Your task to perform on an android device: Open Google Chrome and open the bookmarks view Image 0: 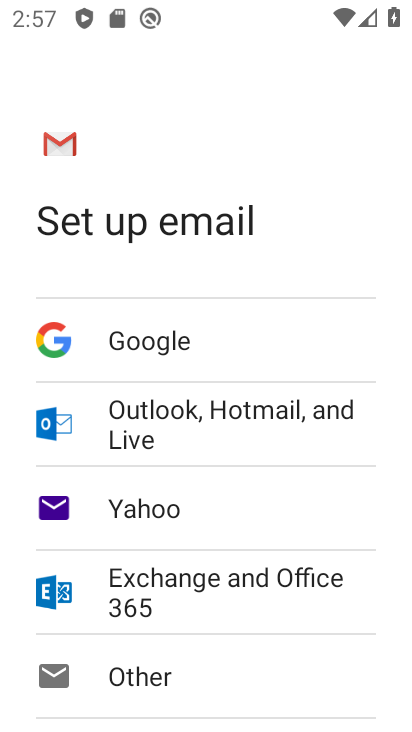
Step 0: press back button
Your task to perform on an android device: Open Google Chrome and open the bookmarks view Image 1: 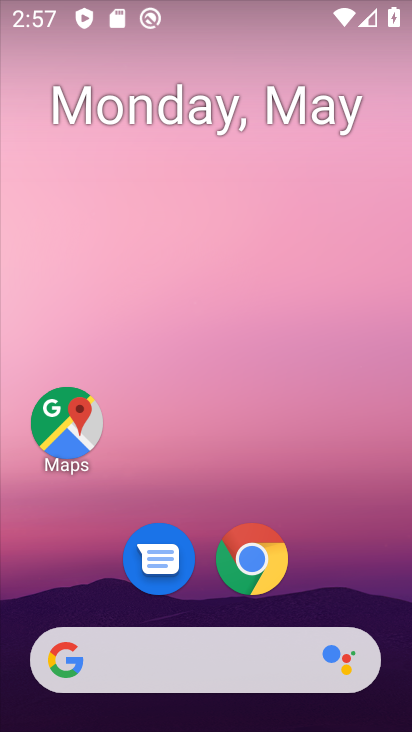
Step 1: press home button
Your task to perform on an android device: Open Google Chrome and open the bookmarks view Image 2: 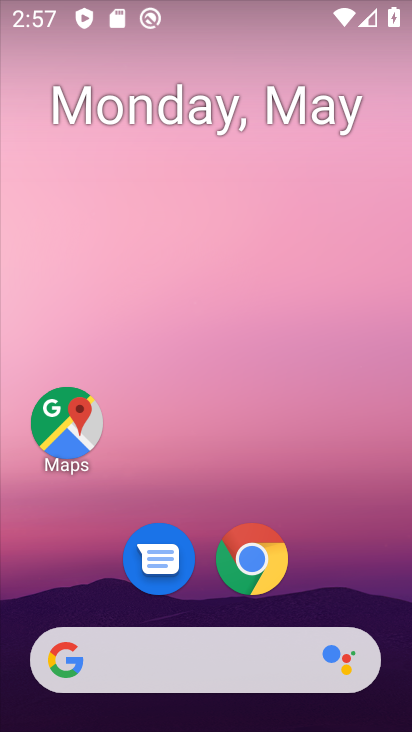
Step 2: drag from (267, 649) to (152, 177)
Your task to perform on an android device: Open Google Chrome and open the bookmarks view Image 3: 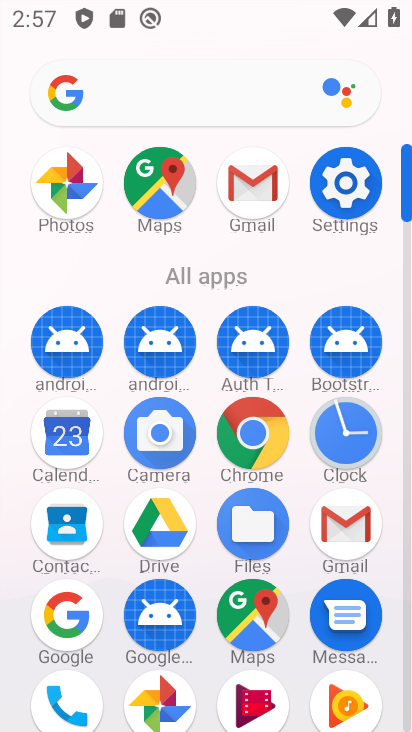
Step 3: click (253, 432)
Your task to perform on an android device: Open Google Chrome and open the bookmarks view Image 4: 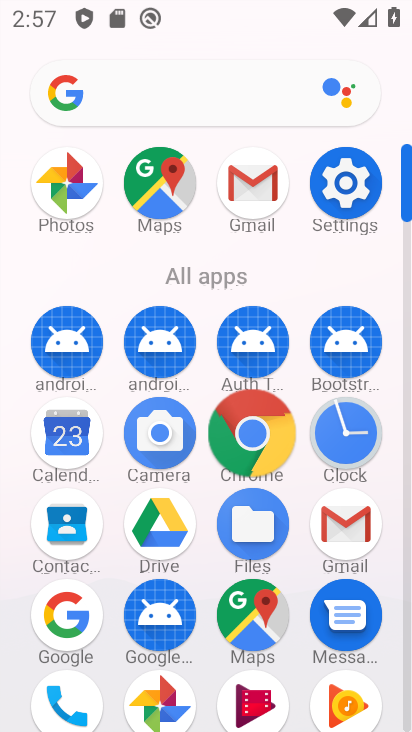
Step 4: click (252, 434)
Your task to perform on an android device: Open Google Chrome and open the bookmarks view Image 5: 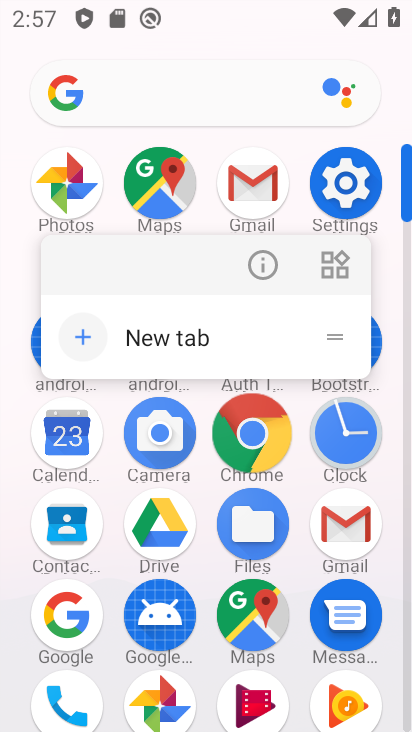
Step 5: click (252, 434)
Your task to perform on an android device: Open Google Chrome and open the bookmarks view Image 6: 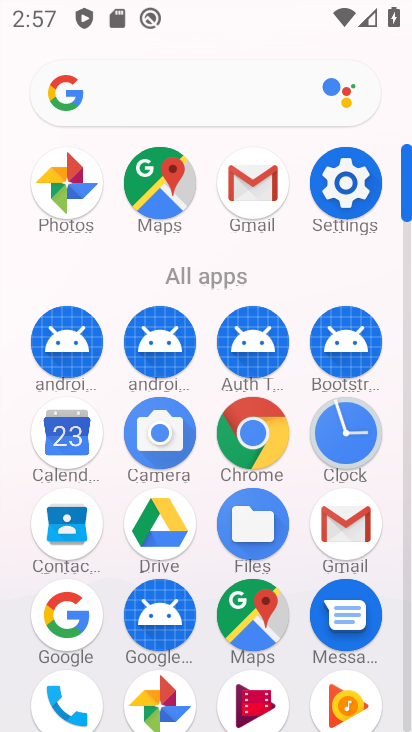
Step 6: click (252, 434)
Your task to perform on an android device: Open Google Chrome and open the bookmarks view Image 7: 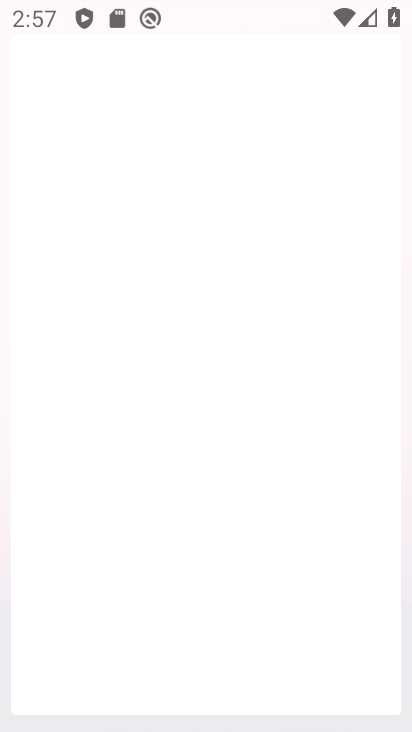
Step 7: click (252, 434)
Your task to perform on an android device: Open Google Chrome and open the bookmarks view Image 8: 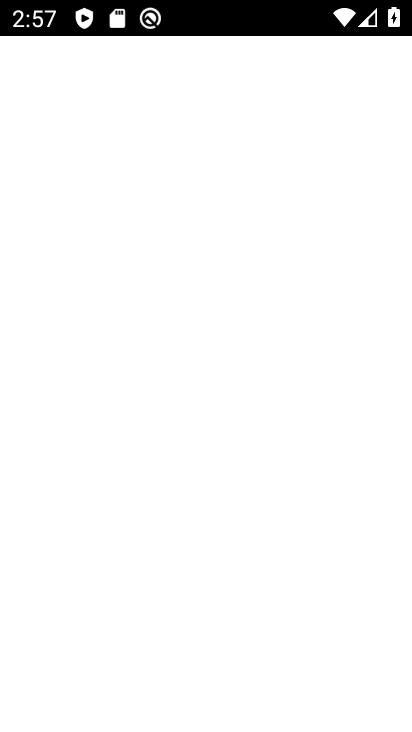
Step 8: click (252, 434)
Your task to perform on an android device: Open Google Chrome and open the bookmarks view Image 9: 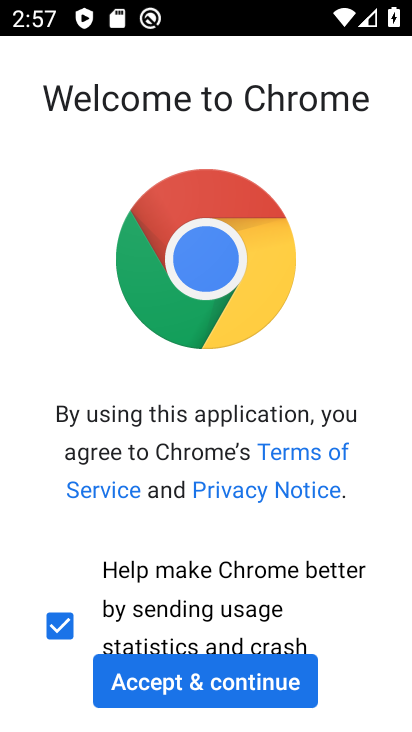
Step 9: click (226, 674)
Your task to perform on an android device: Open Google Chrome and open the bookmarks view Image 10: 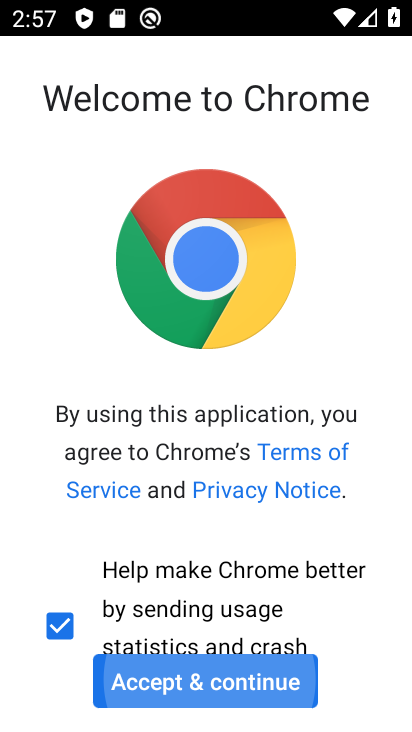
Step 10: click (226, 674)
Your task to perform on an android device: Open Google Chrome and open the bookmarks view Image 11: 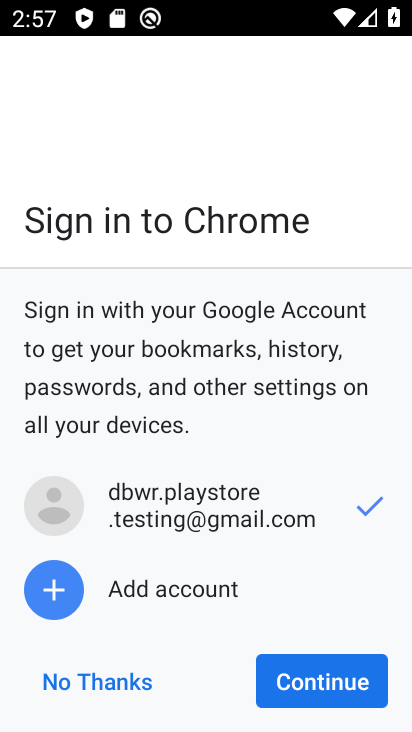
Step 11: click (316, 669)
Your task to perform on an android device: Open Google Chrome and open the bookmarks view Image 12: 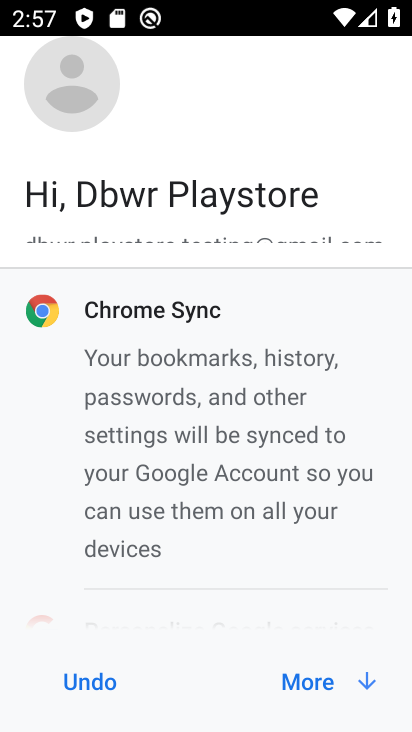
Step 12: click (322, 677)
Your task to perform on an android device: Open Google Chrome and open the bookmarks view Image 13: 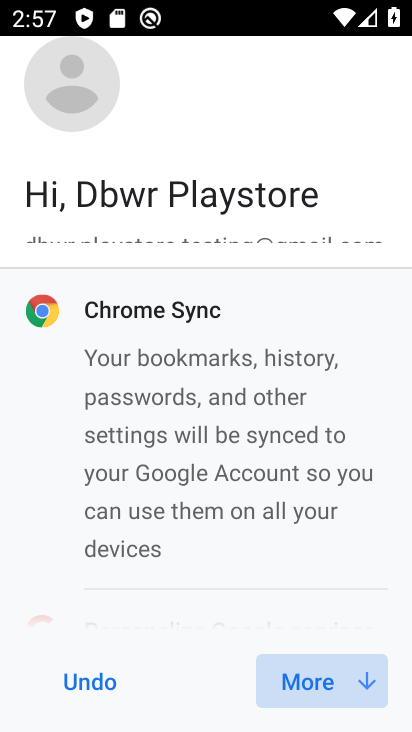
Step 13: click (322, 677)
Your task to perform on an android device: Open Google Chrome and open the bookmarks view Image 14: 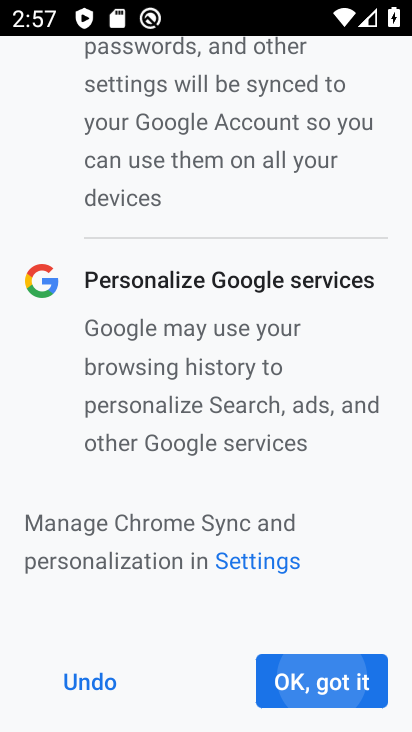
Step 14: click (323, 678)
Your task to perform on an android device: Open Google Chrome and open the bookmarks view Image 15: 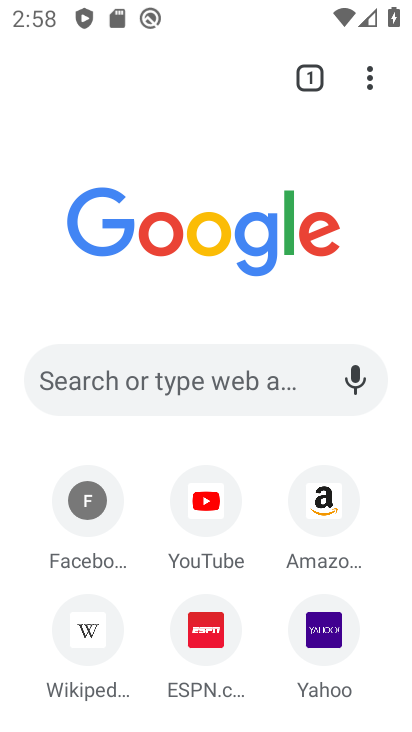
Step 15: drag from (368, 78) to (63, 285)
Your task to perform on an android device: Open Google Chrome and open the bookmarks view Image 16: 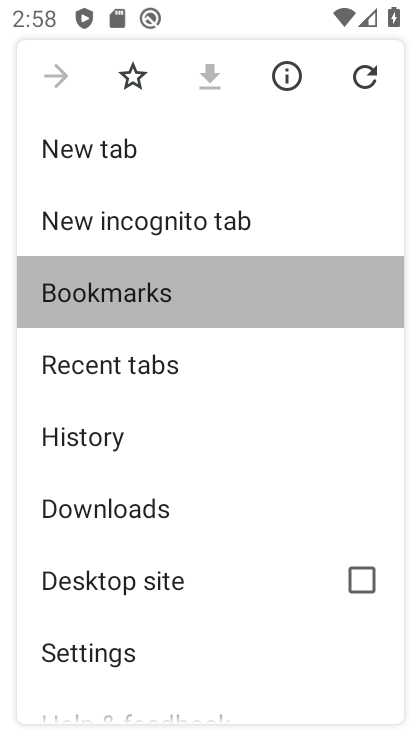
Step 16: click (76, 285)
Your task to perform on an android device: Open Google Chrome and open the bookmarks view Image 17: 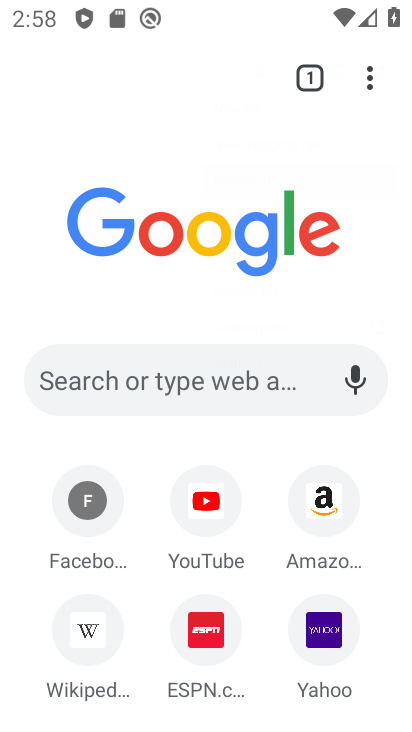
Step 17: click (77, 285)
Your task to perform on an android device: Open Google Chrome and open the bookmarks view Image 18: 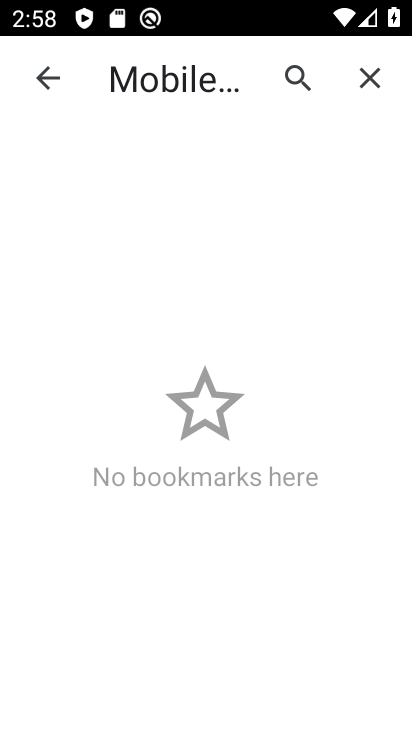
Step 18: task complete